Your task to perform on an android device: turn off picture-in-picture Image 0: 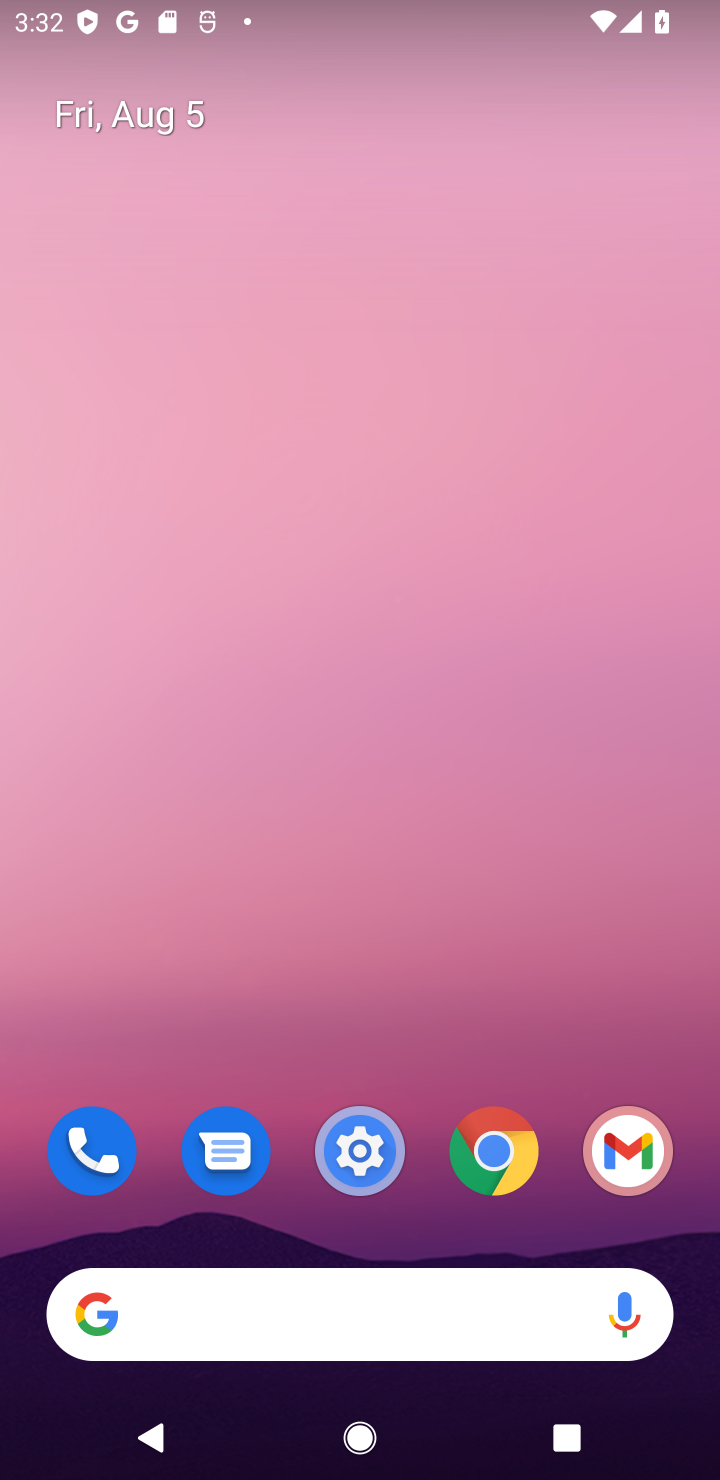
Step 0: click (480, 1146)
Your task to perform on an android device: turn off picture-in-picture Image 1: 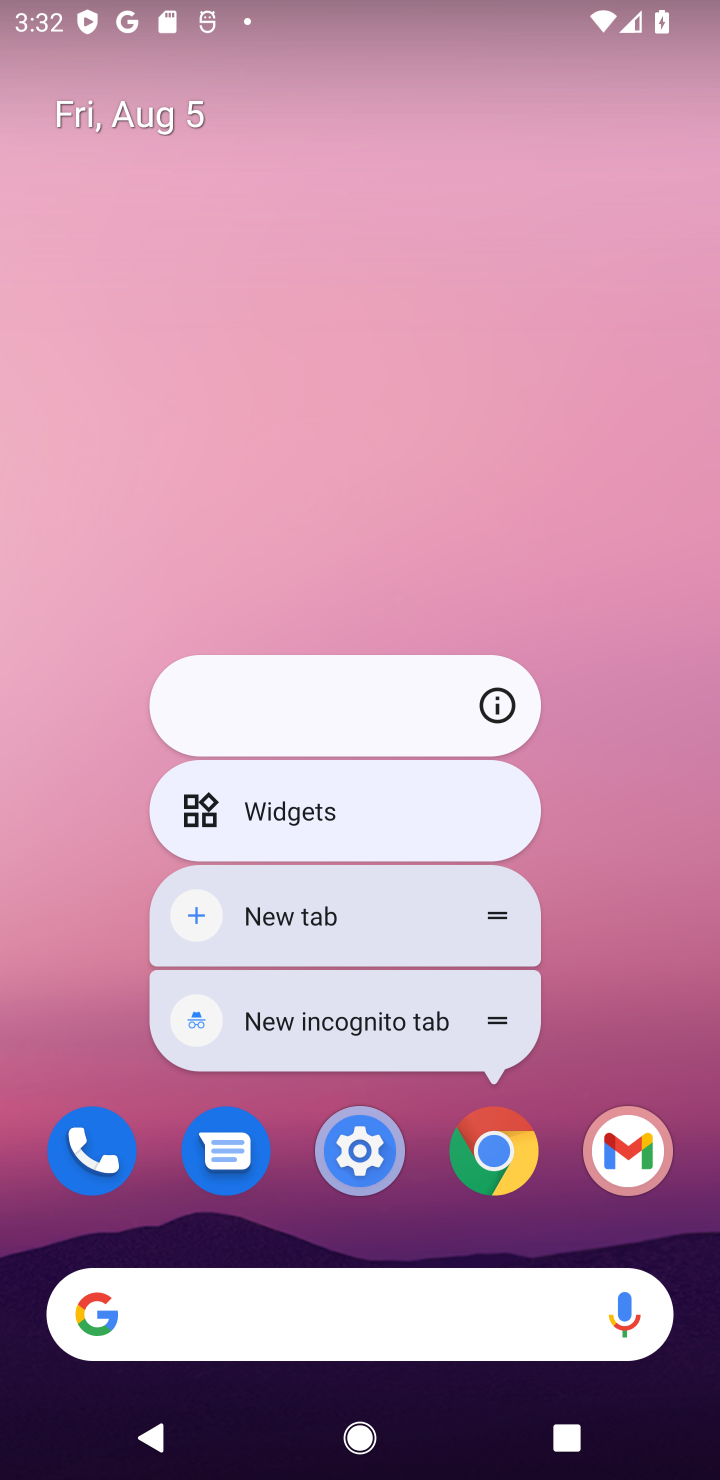
Step 1: click (508, 701)
Your task to perform on an android device: turn off picture-in-picture Image 2: 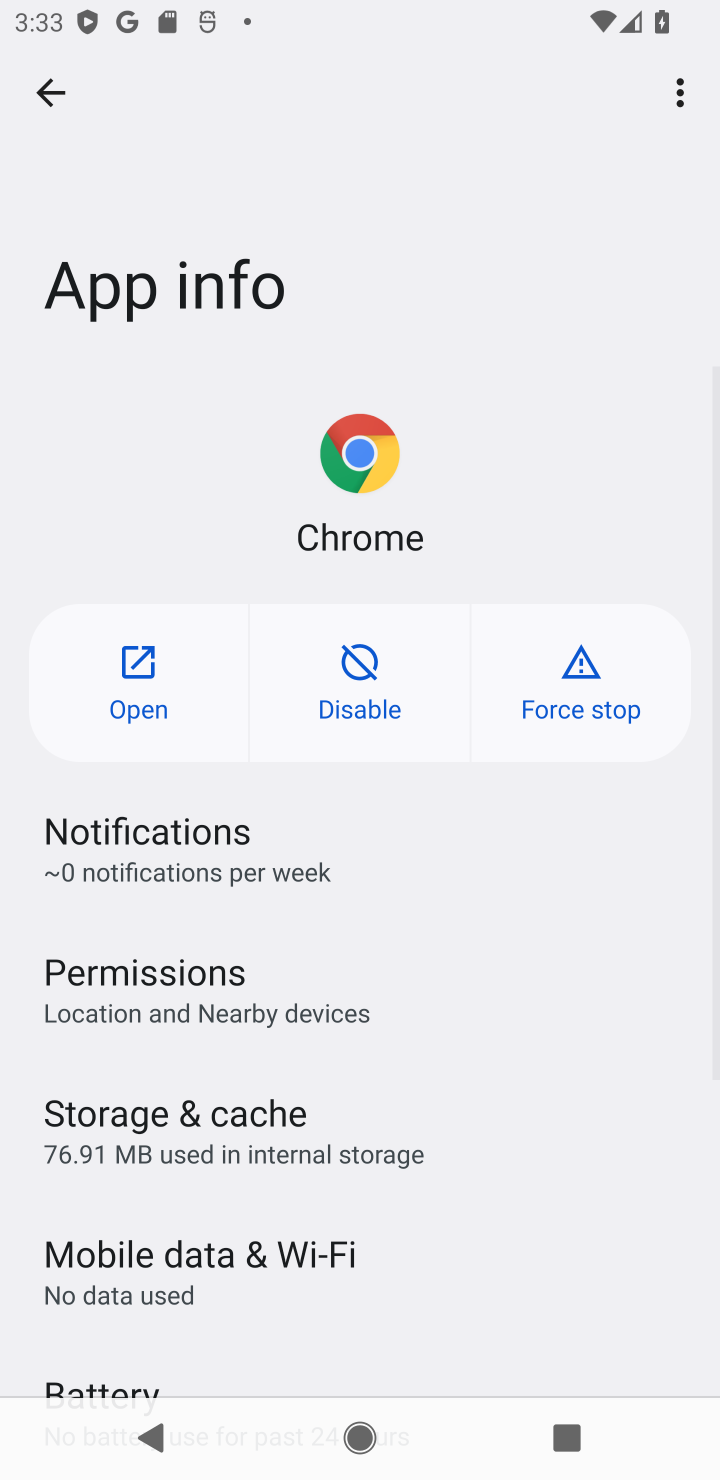
Step 2: drag from (418, 1290) to (412, 419)
Your task to perform on an android device: turn off picture-in-picture Image 3: 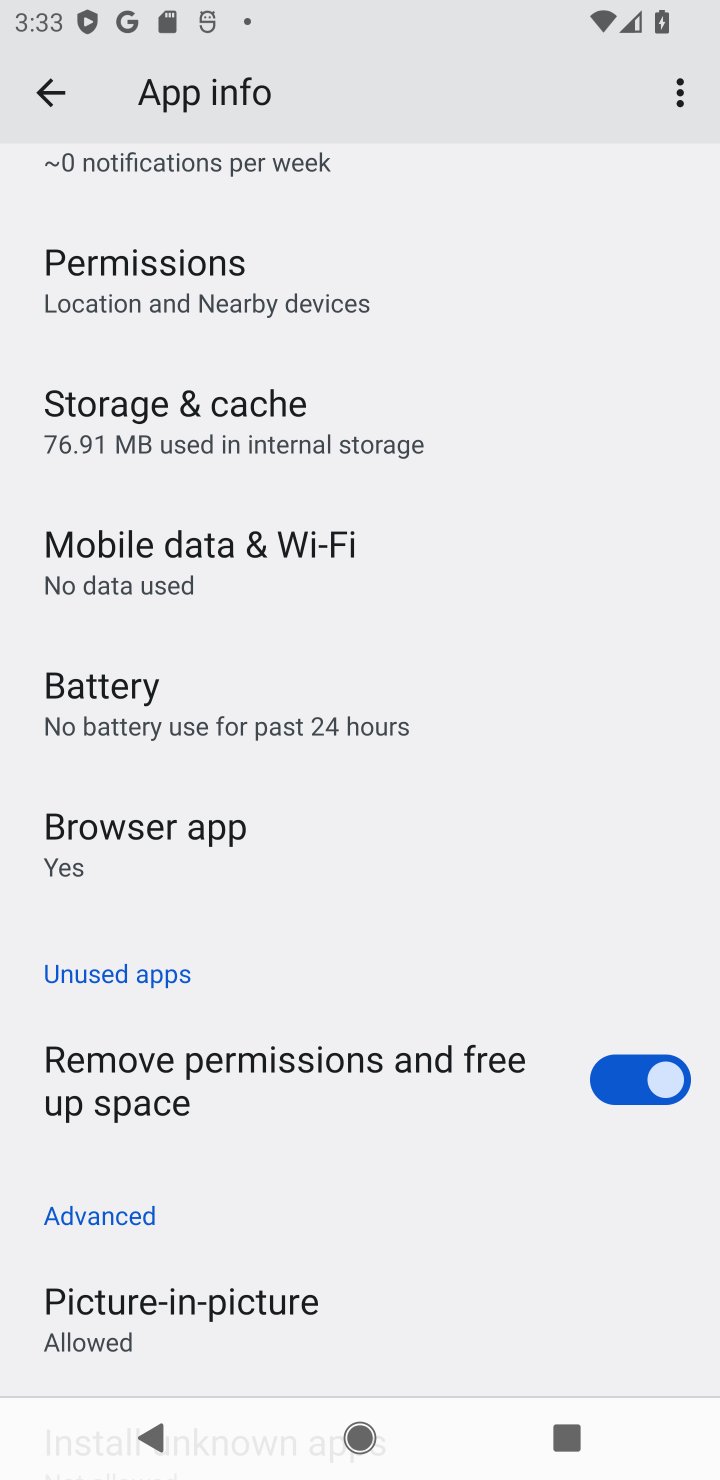
Step 3: drag from (282, 1209) to (254, 378)
Your task to perform on an android device: turn off picture-in-picture Image 4: 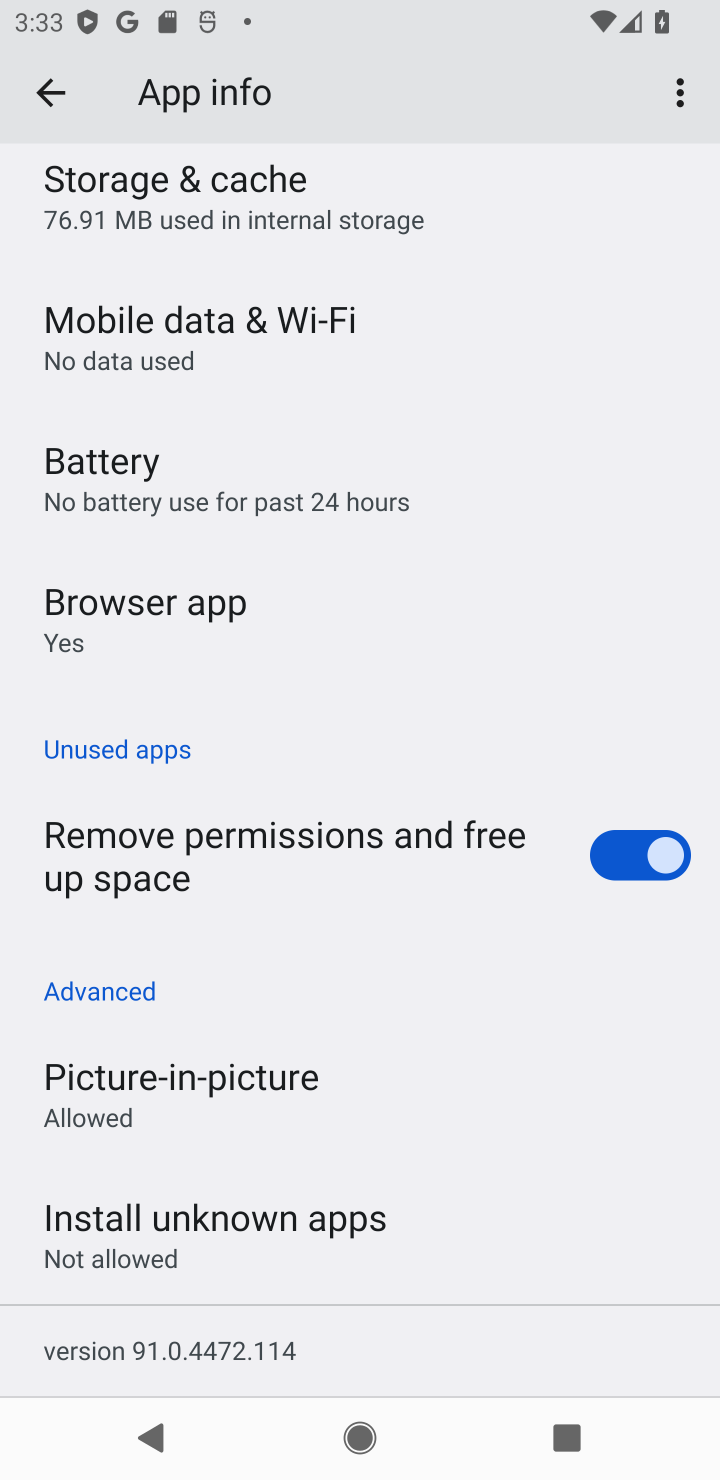
Step 4: click (247, 1064)
Your task to perform on an android device: turn off picture-in-picture Image 5: 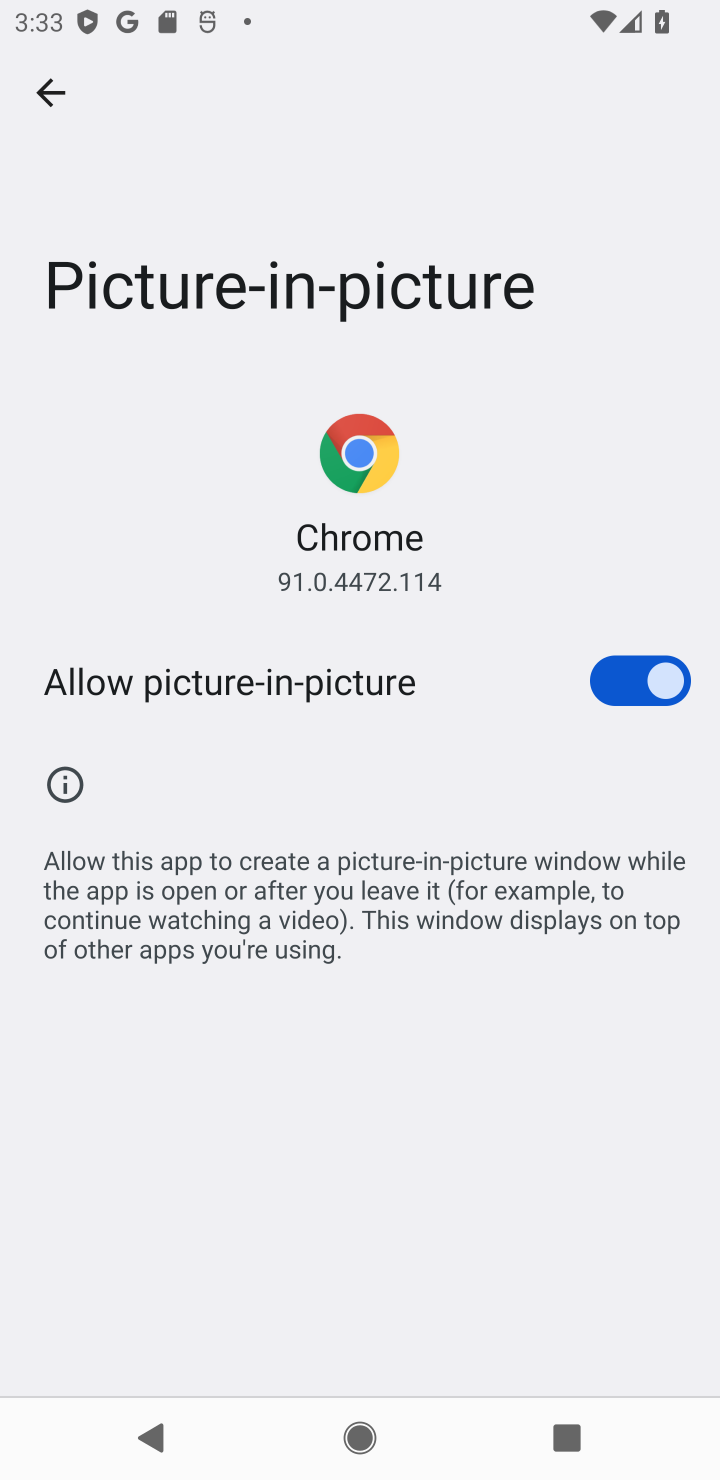
Step 5: click (652, 691)
Your task to perform on an android device: turn off picture-in-picture Image 6: 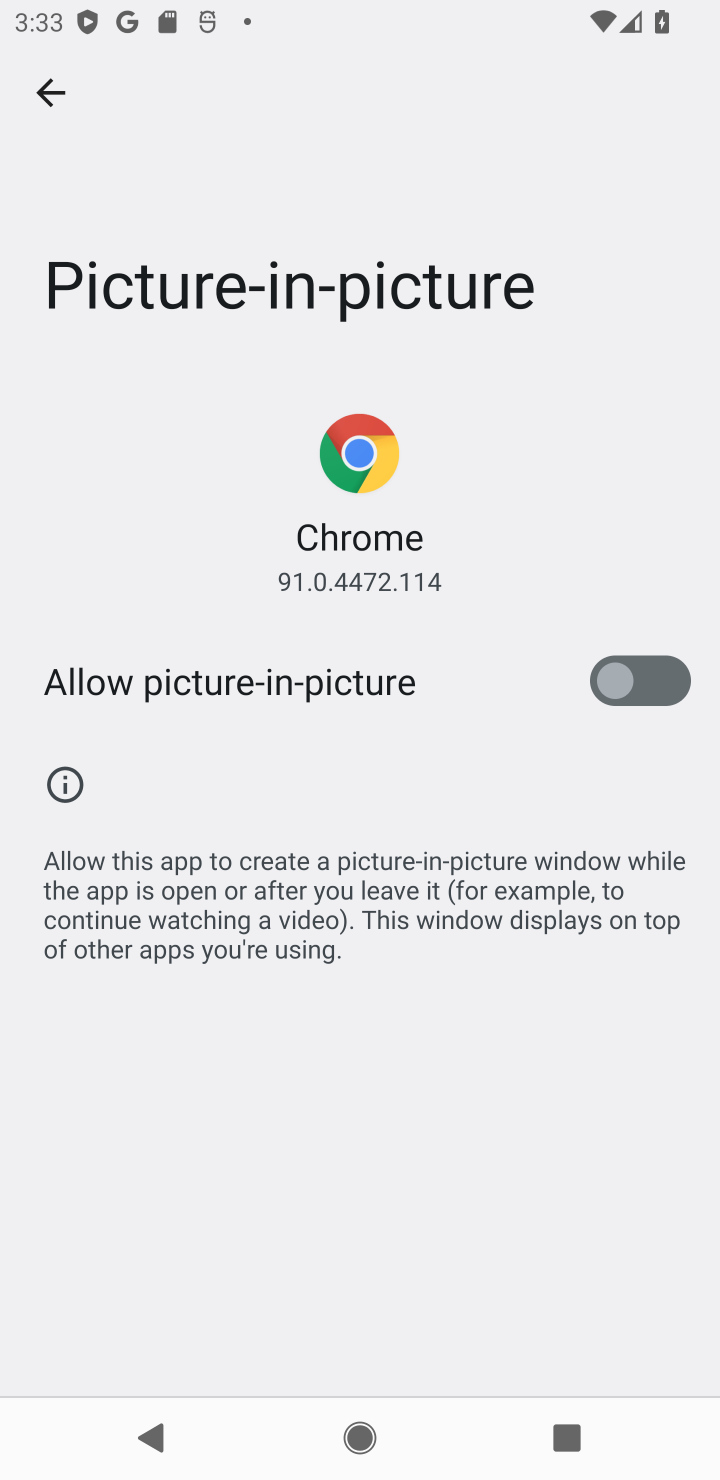
Step 6: task complete